Your task to perform on an android device: Open privacy settings Image 0: 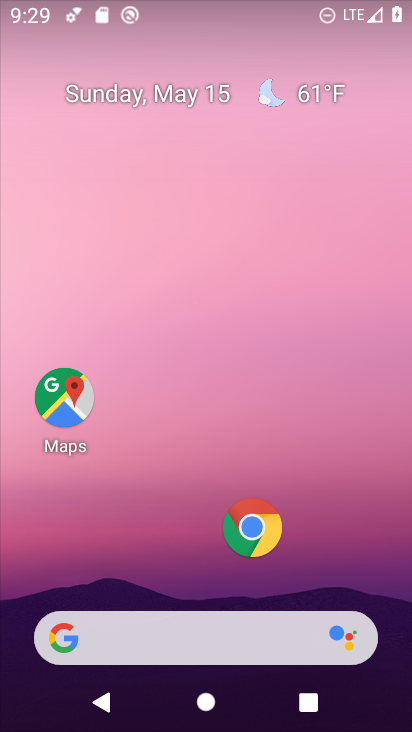
Step 0: drag from (202, 575) to (230, 150)
Your task to perform on an android device: Open privacy settings Image 1: 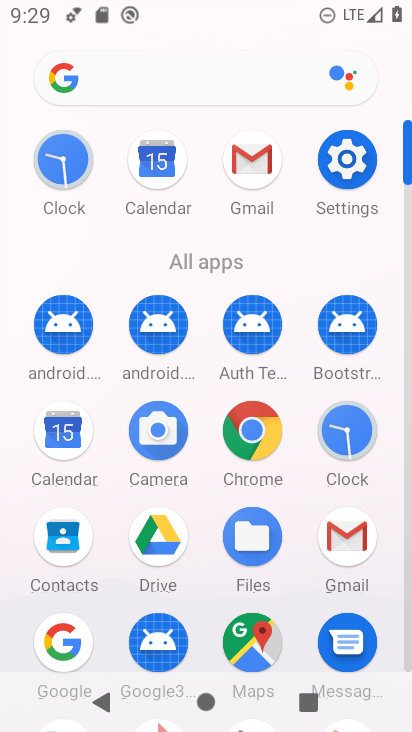
Step 1: click (342, 152)
Your task to perform on an android device: Open privacy settings Image 2: 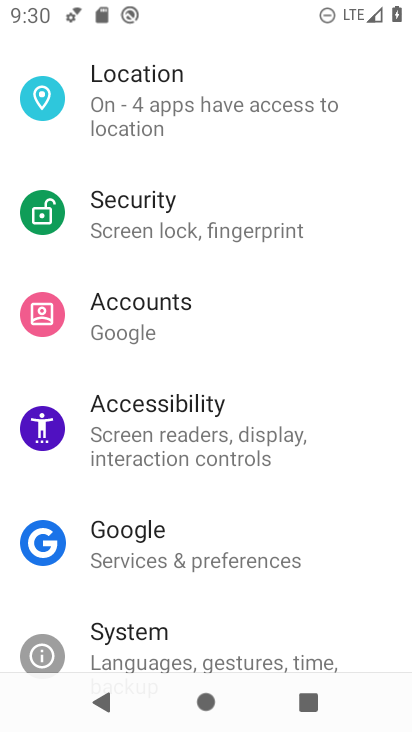
Step 2: drag from (144, 222) to (187, 622)
Your task to perform on an android device: Open privacy settings Image 3: 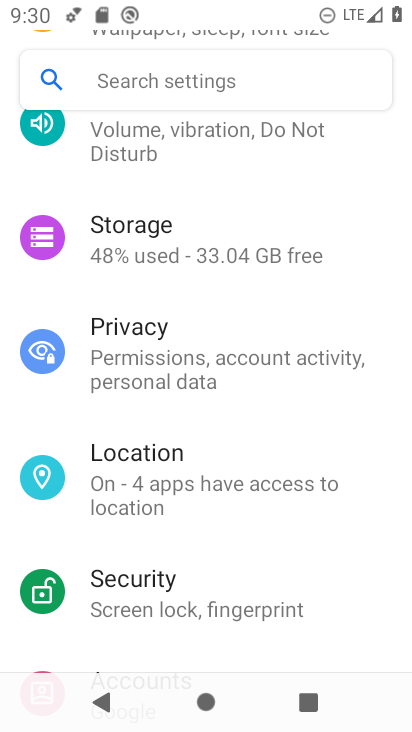
Step 3: click (80, 346)
Your task to perform on an android device: Open privacy settings Image 4: 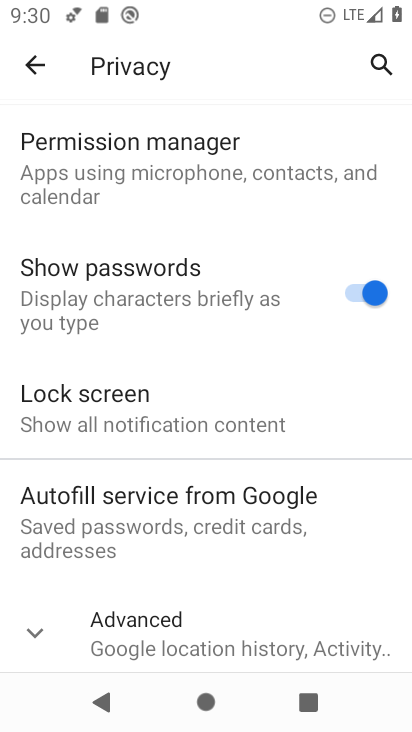
Step 4: click (37, 639)
Your task to perform on an android device: Open privacy settings Image 5: 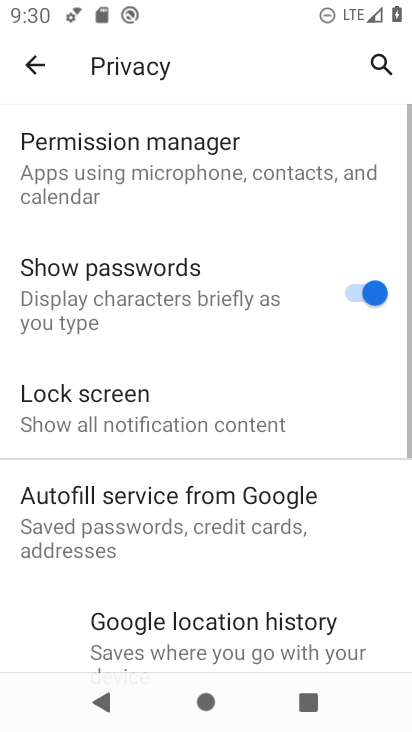
Step 5: task complete